Your task to perform on an android device: Go to sound settings Image 0: 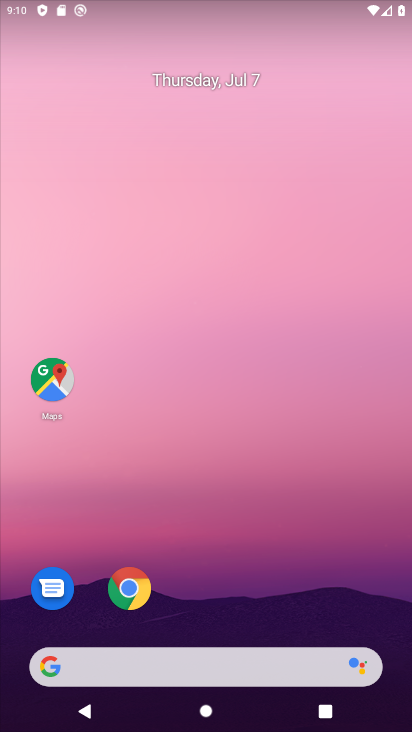
Step 0: drag from (211, 12) to (211, 545)
Your task to perform on an android device: Go to sound settings Image 1: 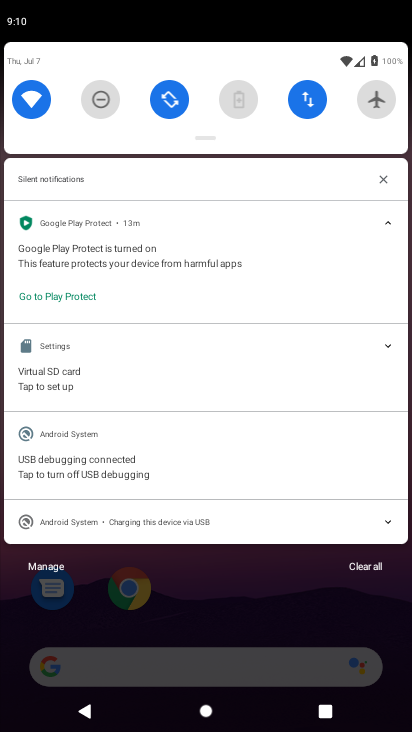
Step 1: drag from (205, 64) to (200, 372)
Your task to perform on an android device: Go to sound settings Image 2: 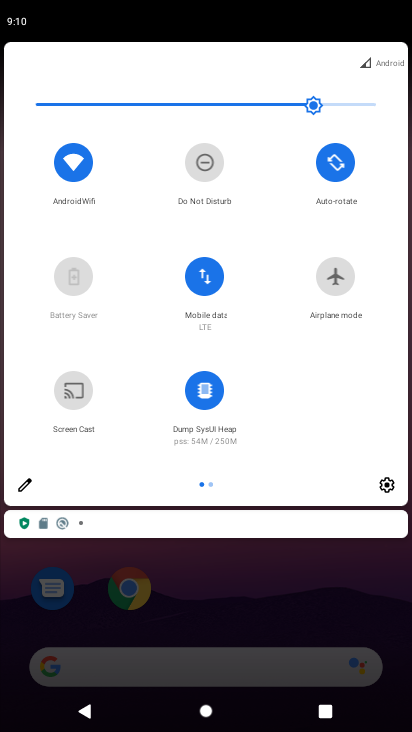
Step 2: click (380, 487)
Your task to perform on an android device: Go to sound settings Image 3: 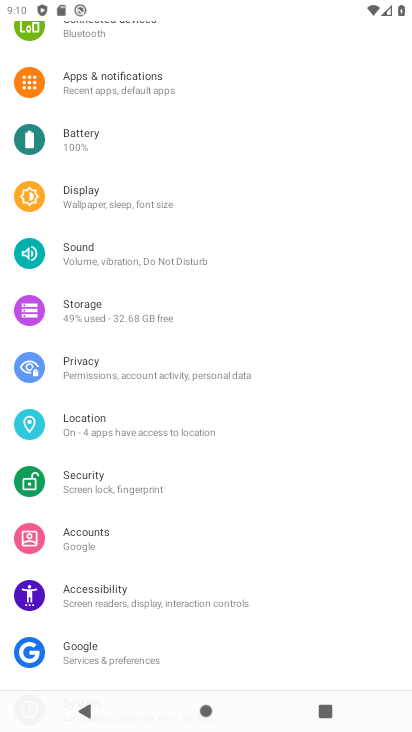
Step 3: click (166, 266)
Your task to perform on an android device: Go to sound settings Image 4: 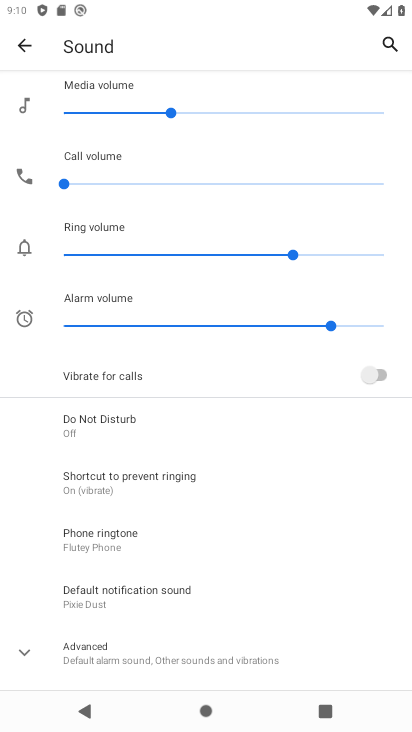
Step 4: task complete